Your task to perform on an android device: turn off data saver in the chrome app Image 0: 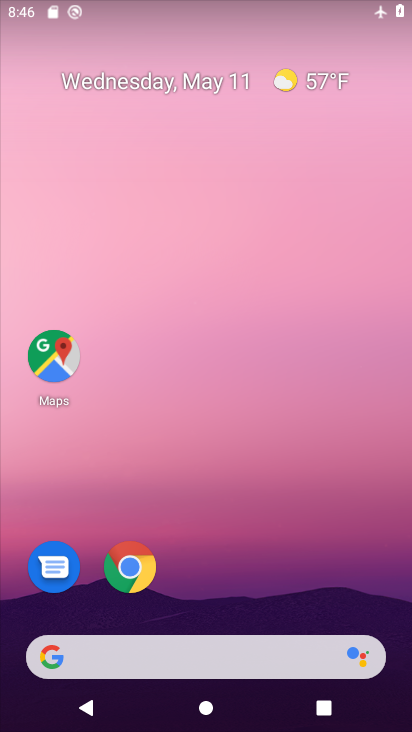
Step 0: click (139, 565)
Your task to perform on an android device: turn off data saver in the chrome app Image 1: 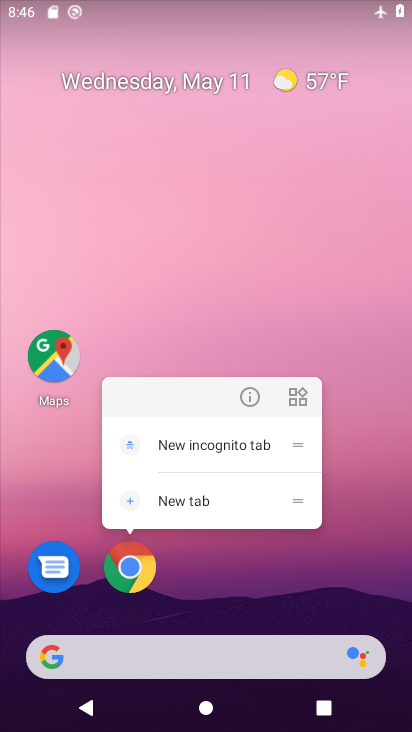
Step 1: click (128, 578)
Your task to perform on an android device: turn off data saver in the chrome app Image 2: 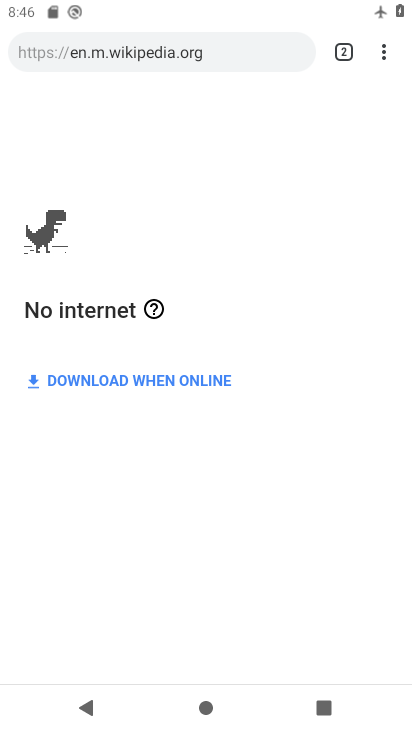
Step 2: click (383, 50)
Your task to perform on an android device: turn off data saver in the chrome app Image 3: 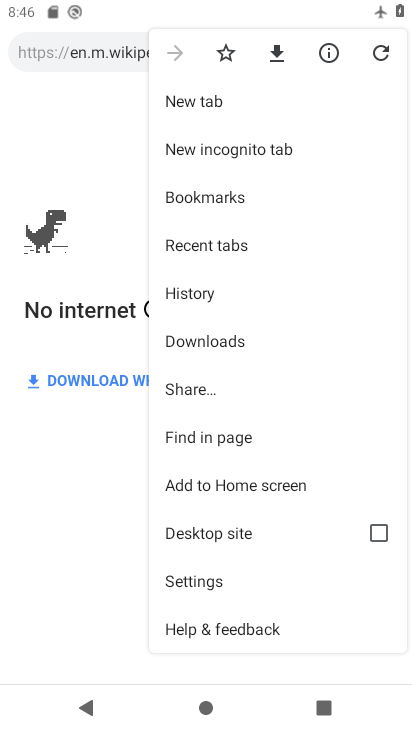
Step 3: click (212, 574)
Your task to perform on an android device: turn off data saver in the chrome app Image 4: 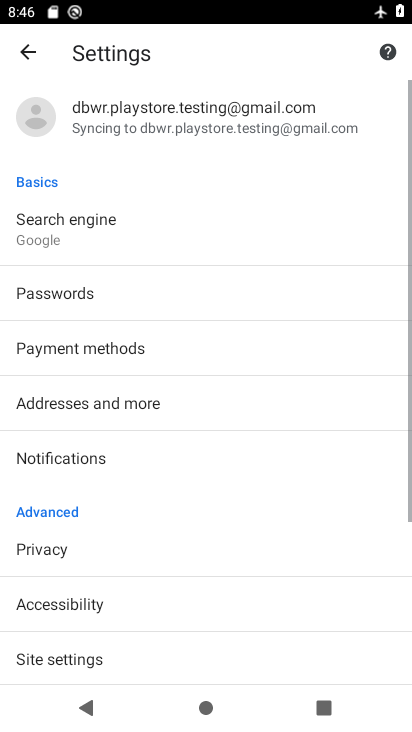
Step 4: drag from (138, 625) to (187, 249)
Your task to perform on an android device: turn off data saver in the chrome app Image 5: 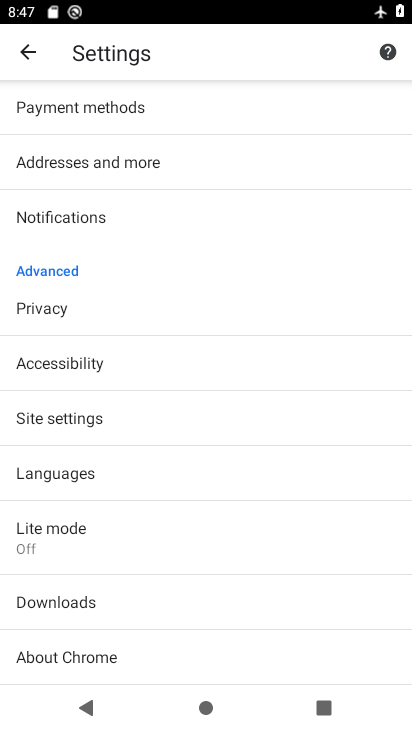
Step 5: click (88, 538)
Your task to perform on an android device: turn off data saver in the chrome app Image 6: 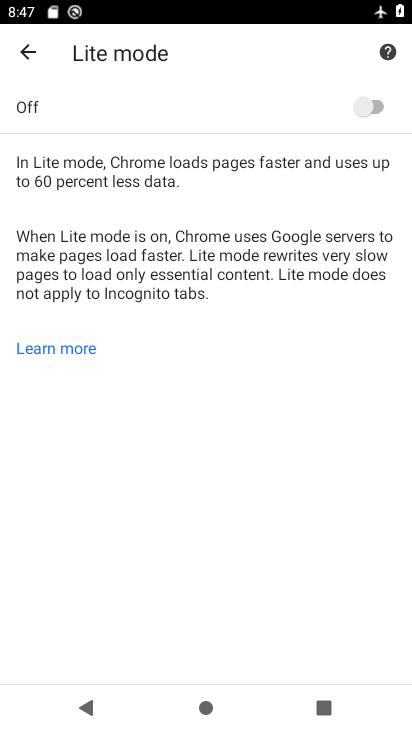
Step 6: task complete